Your task to perform on an android device: turn off notifications in google photos Image 0: 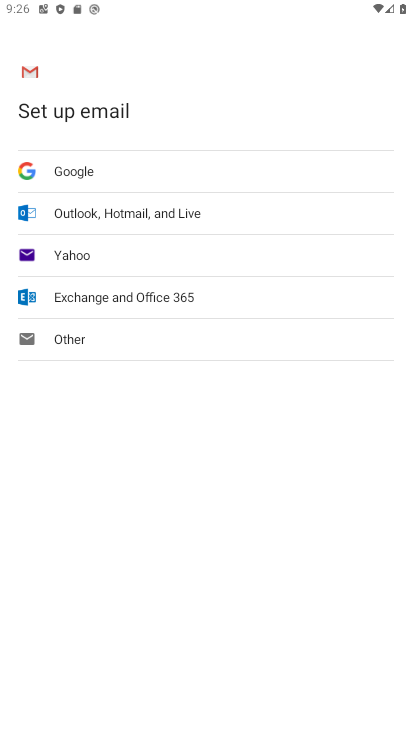
Step 0: press home button
Your task to perform on an android device: turn off notifications in google photos Image 1: 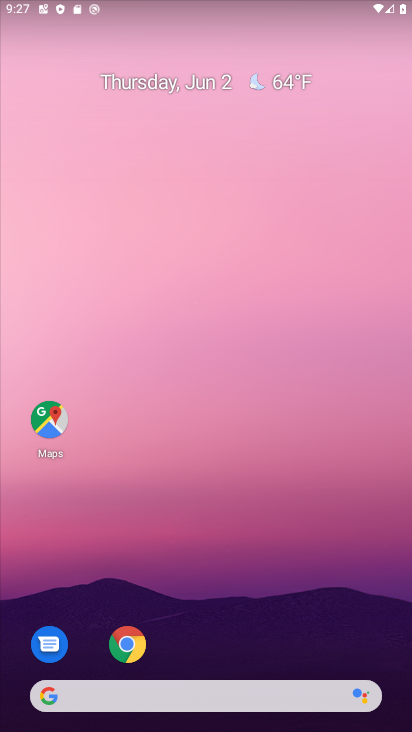
Step 1: drag from (339, 595) to (361, 141)
Your task to perform on an android device: turn off notifications in google photos Image 2: 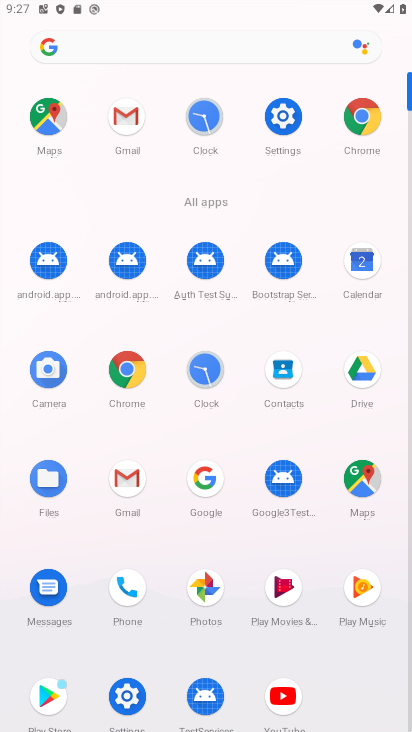
Step 2: click (198, 602)
Your task to perform on an android device: turn off notifications in google photos Image 3: 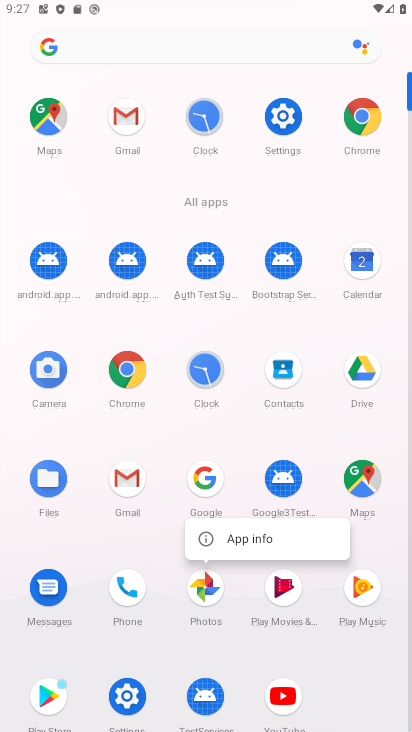
Step 3: click (239, 530)
Your task to perform on an android device: turn off notifications in google photos Image 4: 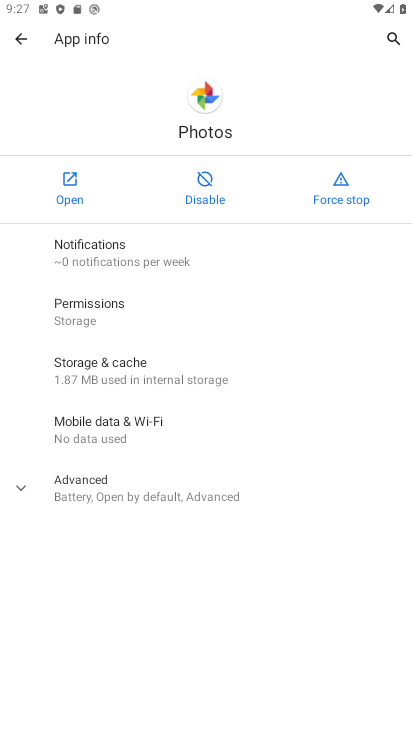
Step 4: click (74, 266)
Your task to perform on an android device: turn off notifications in google photos Image 5: 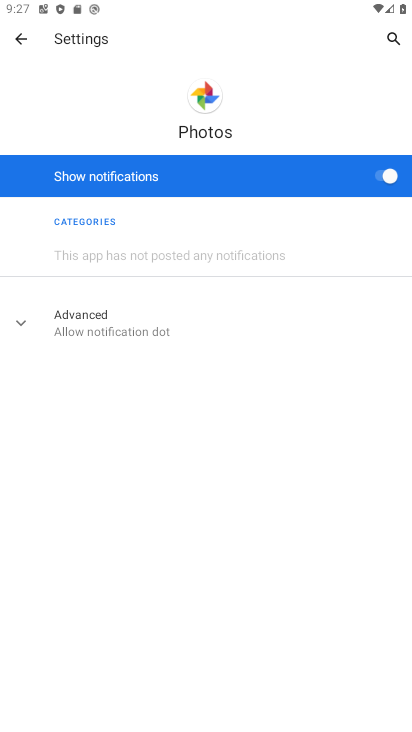
Step 5: click (270, 169)
Your task to perform on an android device: turn off notifications in google photos Image 6: 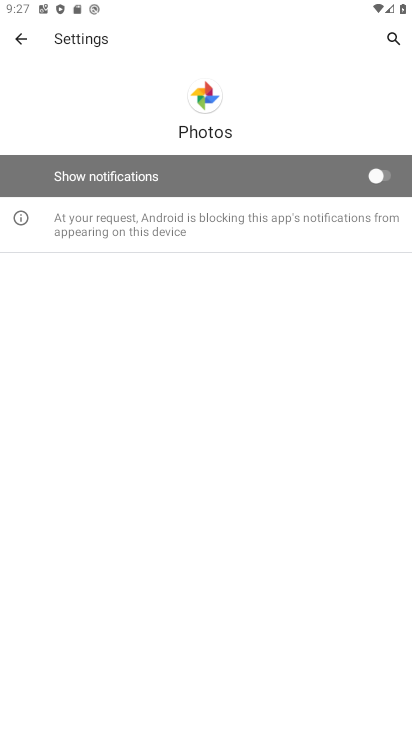
Step 6: task complete